Your task to perform on an android device: change keyboard looks Image 0: 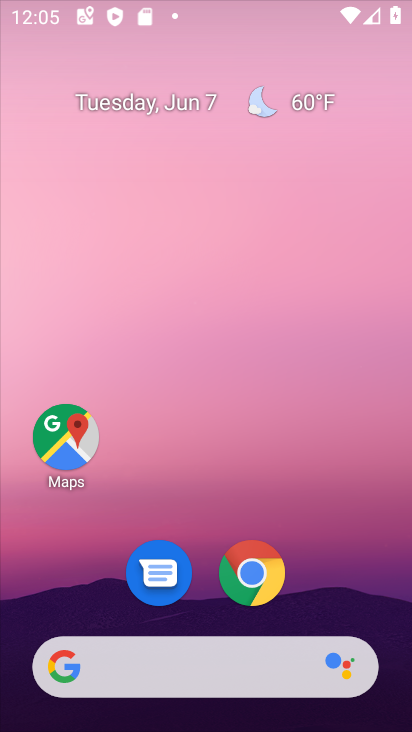
Step 0: press home button
Your task to perform on an android device: change keyboard looks Image 1: 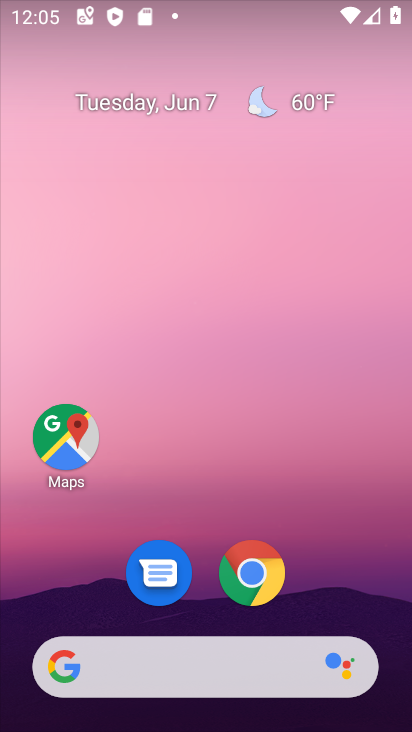
Step 1: drag from (394, 593) to (352, 4)
Your task to perform on an android device: change keyboard looks Image 2: 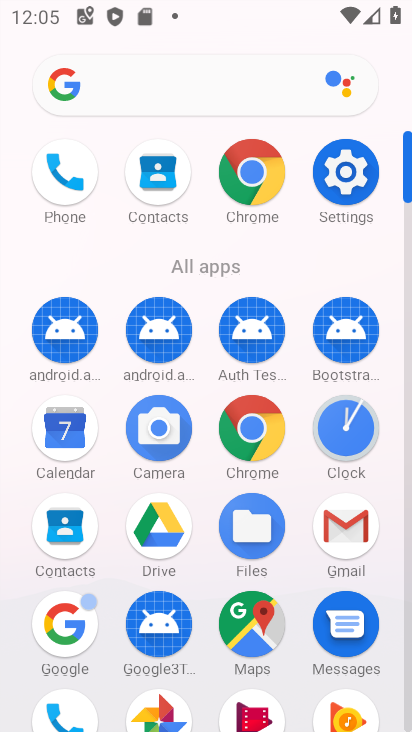
Step 2: click (355, 185)
Your task to perform on an android device: change keyboard looks Image 3: 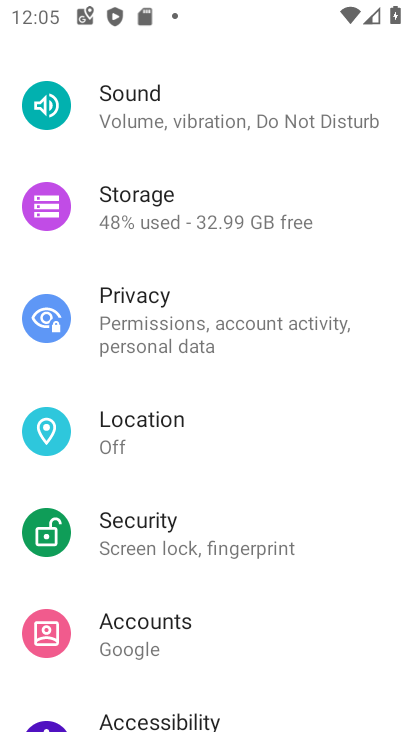
Step 3: drag from (143, 558) to (232, 8)
Your task to perform on an android device: change keyboard looks Image 4: 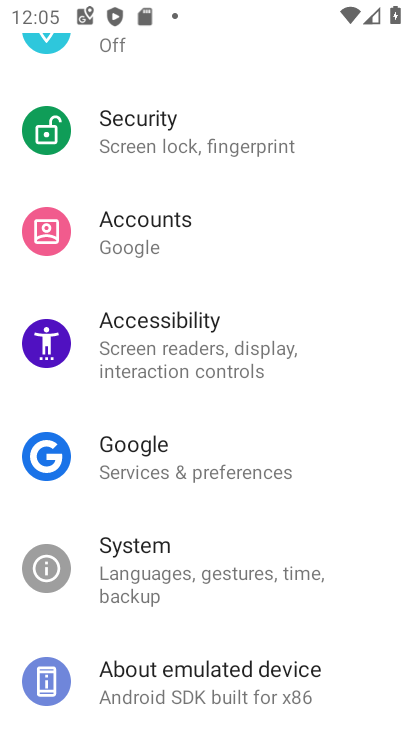
Step 4: click (79, 548)
Your task to perform on an android device: change keyboard looks Image 5: 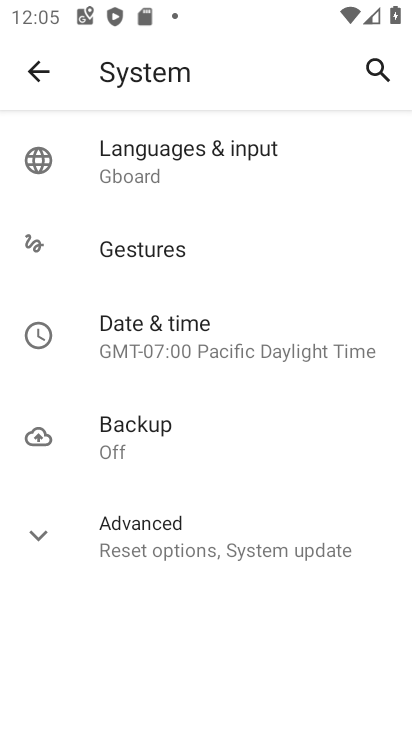
Step 5: click (173, 171)
Your task to perform on an android device: change keyboard looks Image 6: 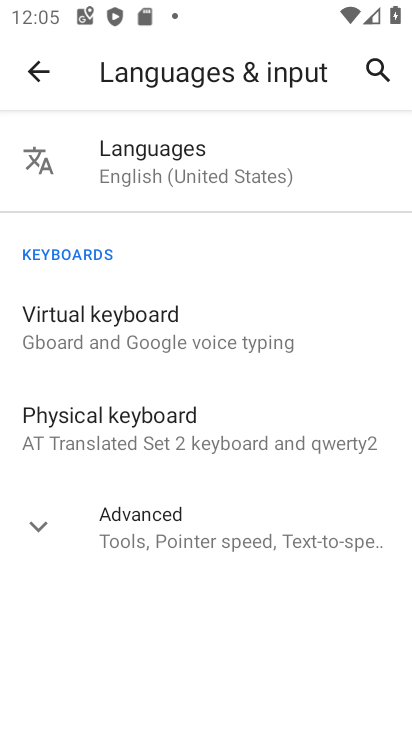
Step 6: click (184, 334)
Your task to perform on an android device: change keyboard looks Image 7: 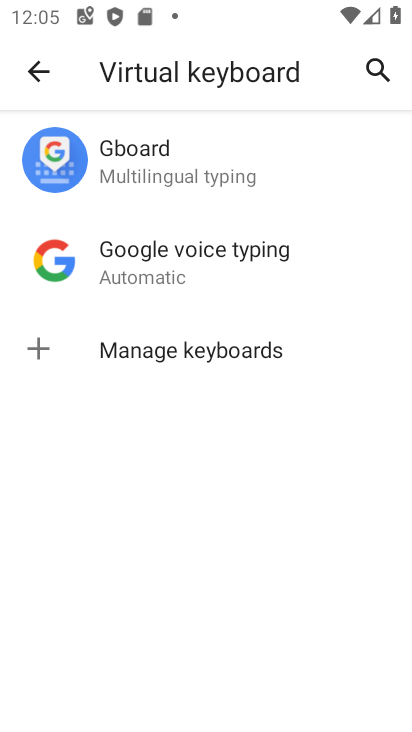
Step 7: click (227, 166)
Your task to perform on an android device: change keyboard looks Image 8: 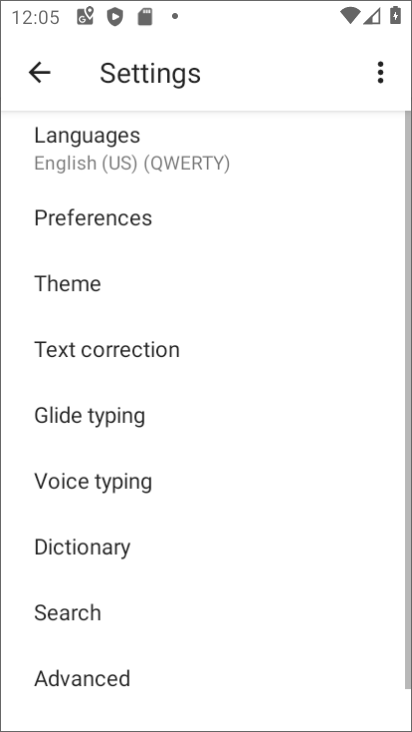
Step 8: click (205, 261)
Your task to perform on an android device: change keyboard looks Image 9: 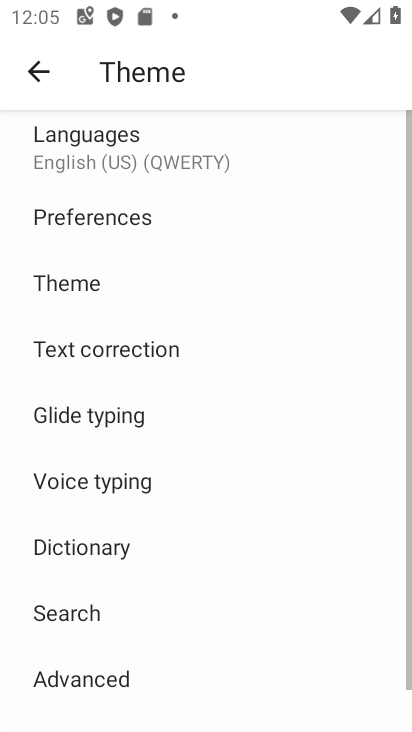
Step 9: click (227, 392)
Your task to perform on an android device: change keyboard looks Image 10: 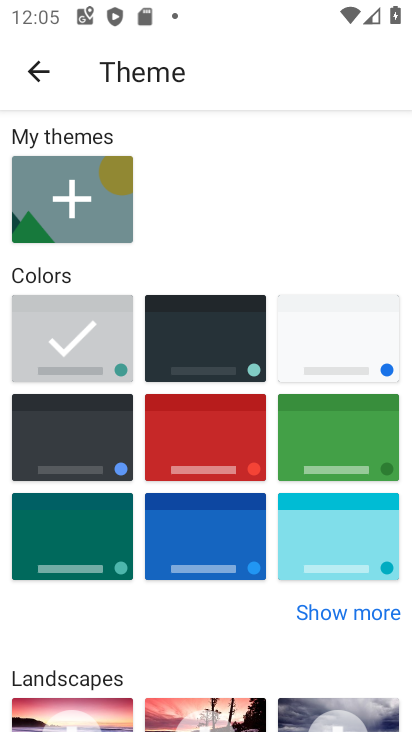
Step 10: click (227, 392)
Your task to perform on an android device: change keyboard looks Image 11: 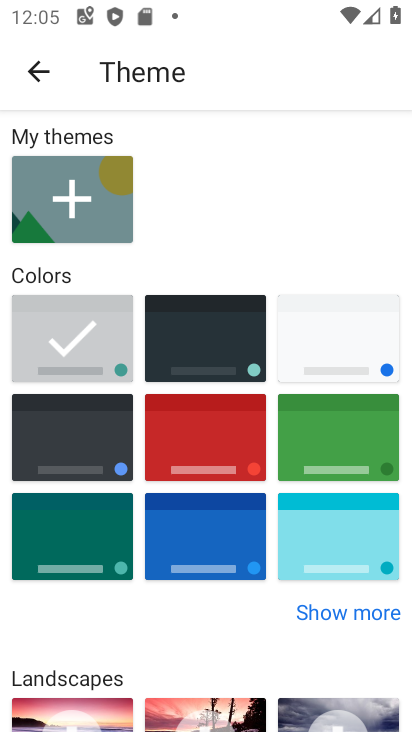
Step 11: click (245, 426)
Your task to perform on an android device: change keyboard looks Image 12: 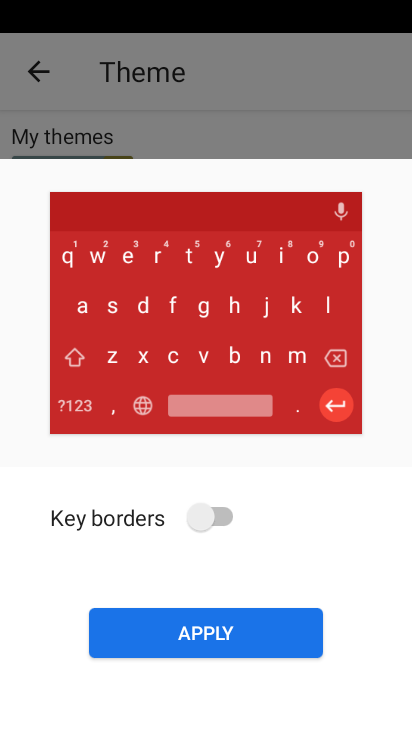
Step 12: click (212, 619)
Your task to perform on an android device: change keyboard looks Image 13: 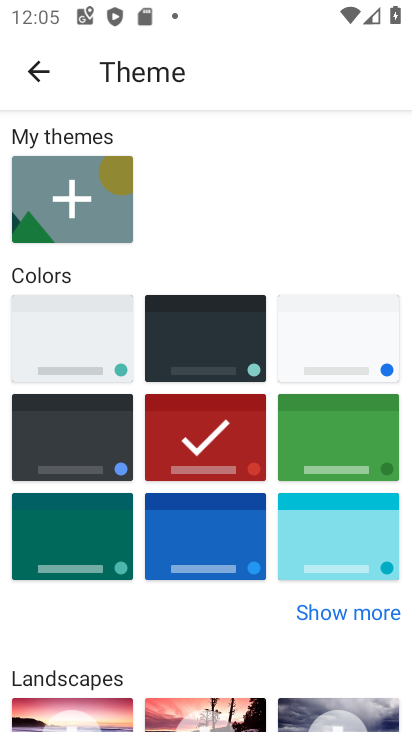
Step 13: task complete